Your task to perform on an android device: Open Chrome and go to the settings page Image 0: 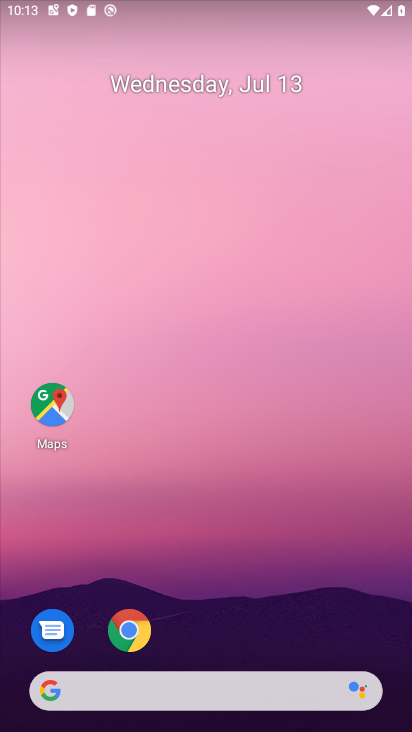
Step 0: drag from (311, 440) to (309, 191)
Your task to perform on an android device: Open Chrome and go to the settings page Image 1: 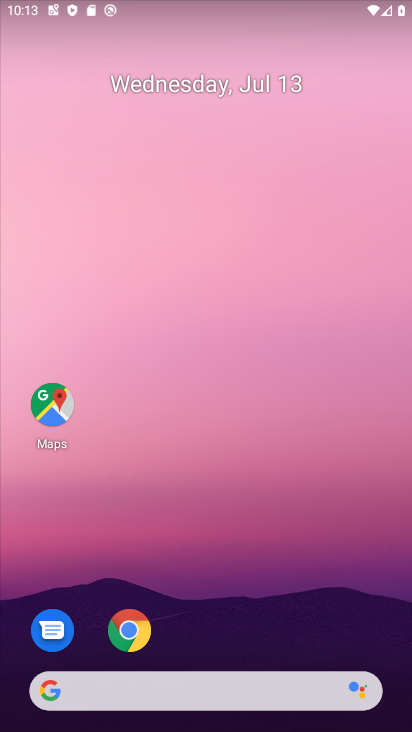
Step 1: drag from (287, 588) to (38, 350)
Your task to perform on an android device: Open Chrome and go to the settings page Image 2: 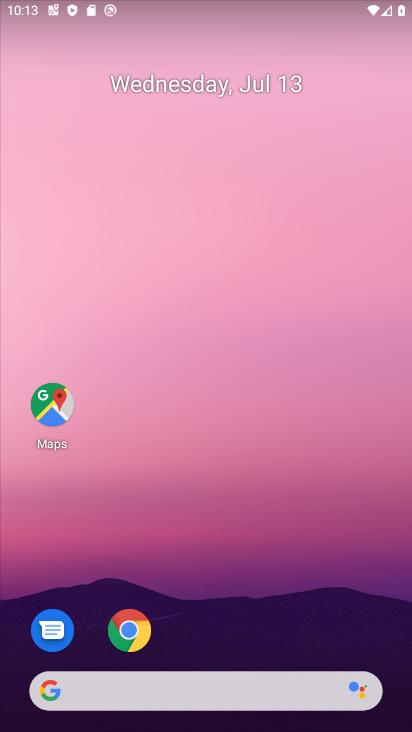
Step 2: drag from (288, 544) to (305, 147)
Your task to perform on an android device: Open Chrome and go to the settings page Image 3: 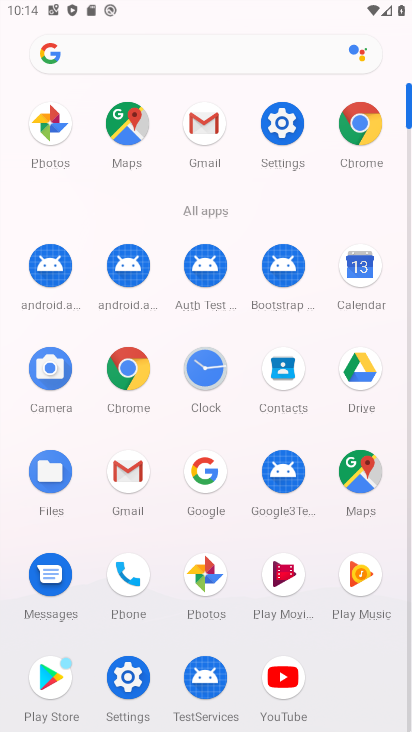
Step 3: click (355, 132)
Your task to perform on an android device: Open Chrome and go to the settings page Image 4: 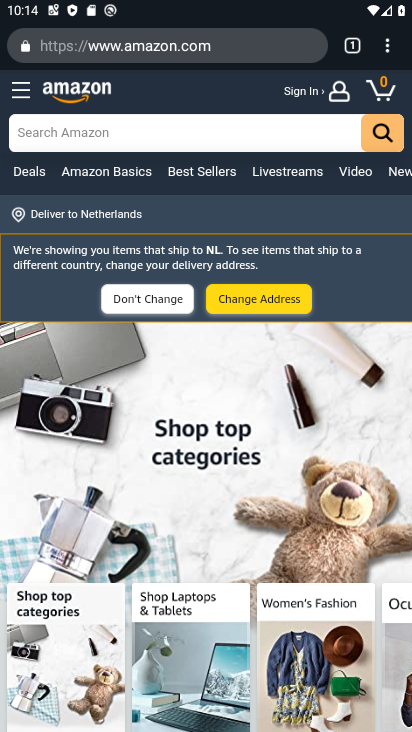
Step 4: task complete